Your task to perform on an android device: Open network settings Image 0: 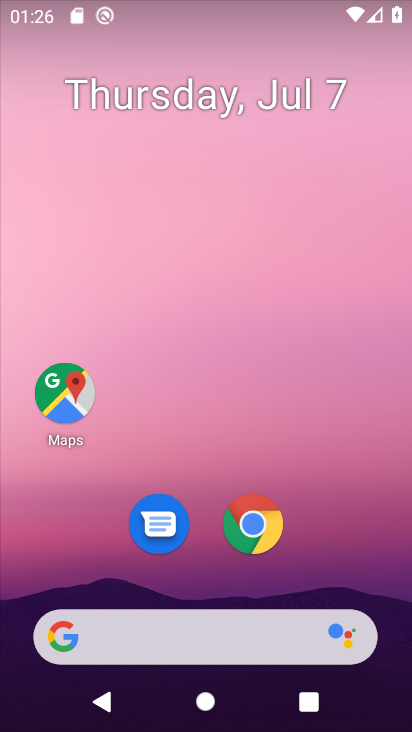
Step 0: drag from (222, 471) to (244, 47)
Your task to perform on an android device: Open network settings Image 1: 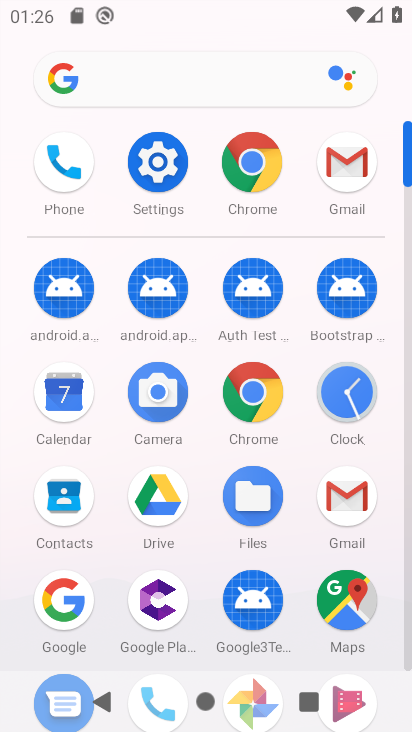
Step 1: click (158, 174)
Your task to perform on an android device: Open network settings Image 2: 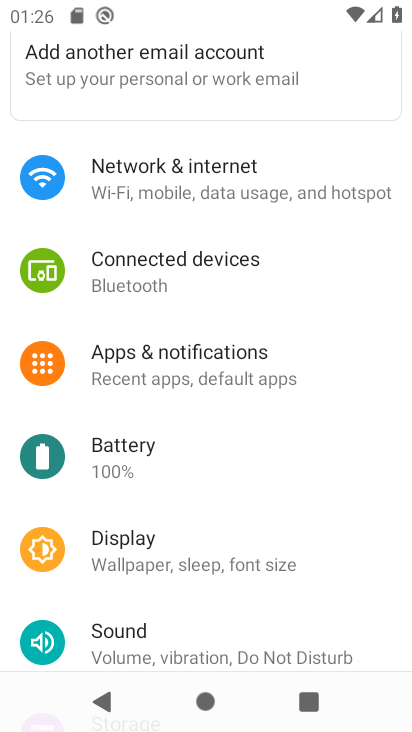
Step 2: click (269, 187)
Your task to perform on an android device: Open network settings Image 3: 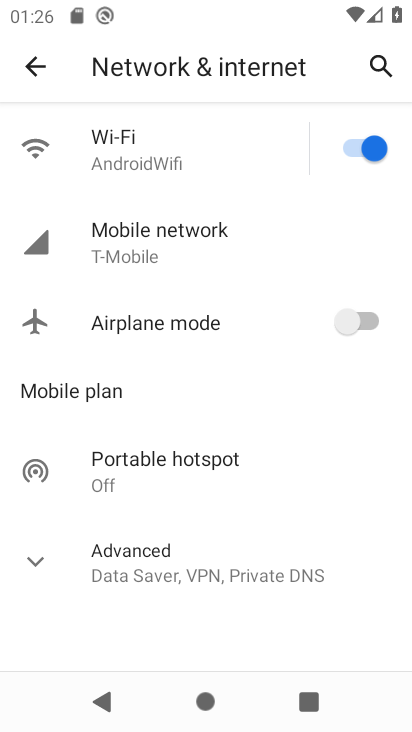
Step 3: task complete